Your task to perform on an android device: change the upload size in google photos Image 0: 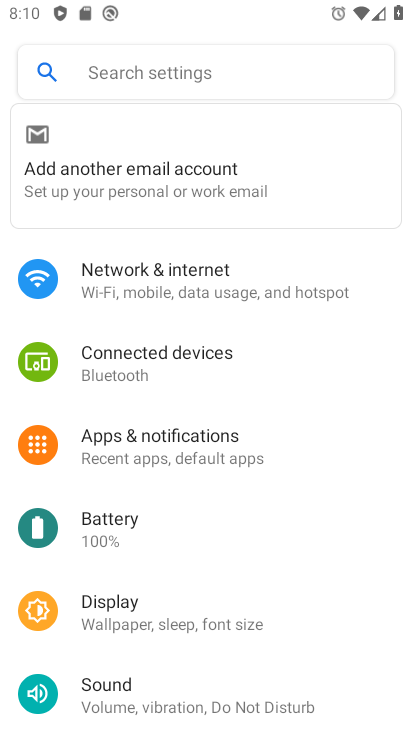
Step 0: press home button
Your task to perform on an android device: change the upload size in google photos Image 1: 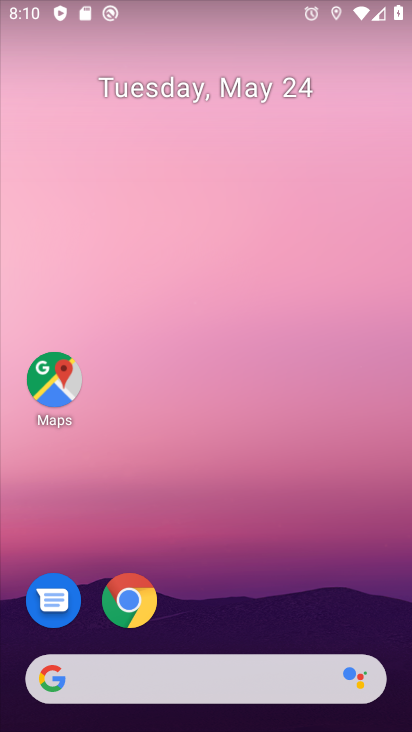
Step 1: drag from (213, 711) to (218, 212)
Your task to perform on an android device: change the upload size in google photos Image 2: 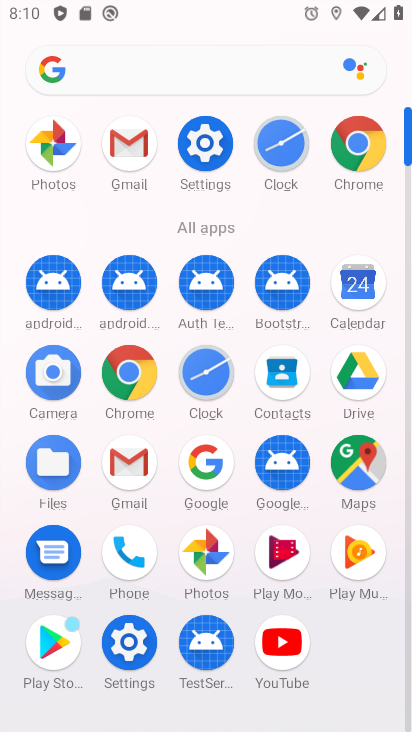
Step 2: click (201, 552)
Your task to perform on an android device: change the upload size in google photos Image 3: 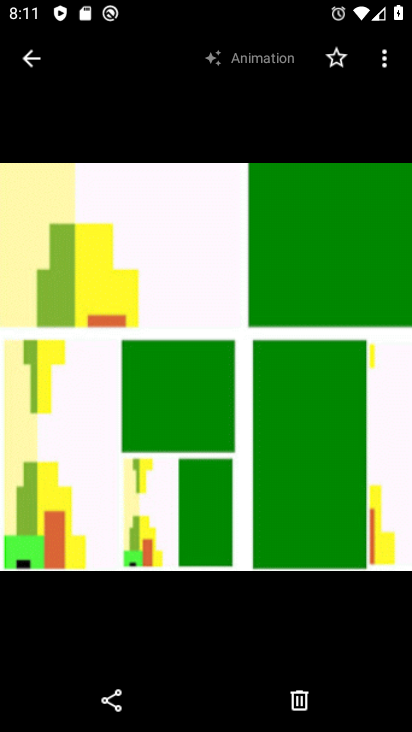
Step 3: click (31, 61)
Your task to perform on an android device: change the upload size in google photos Image 4: 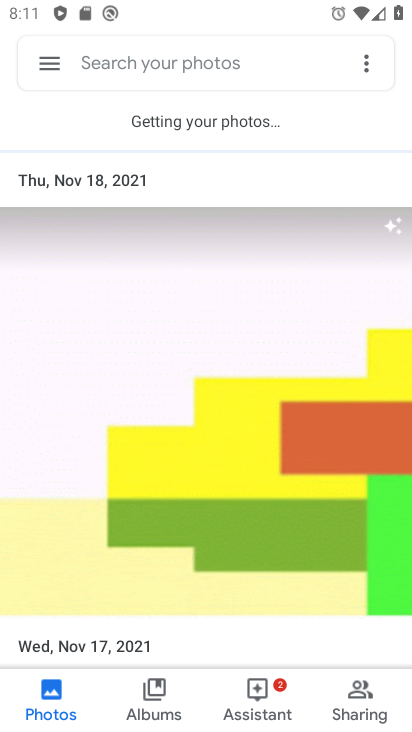
Step 4: click (47, 60)
Your task to perform on an android device: change the upload size in google photos Image 5: 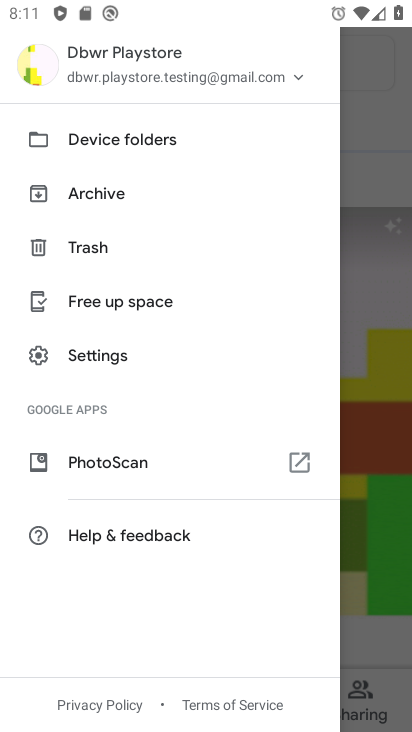
Step 5: click (108, 356)
Your task to perform on an android device: change the upload size in google photos Image 6: 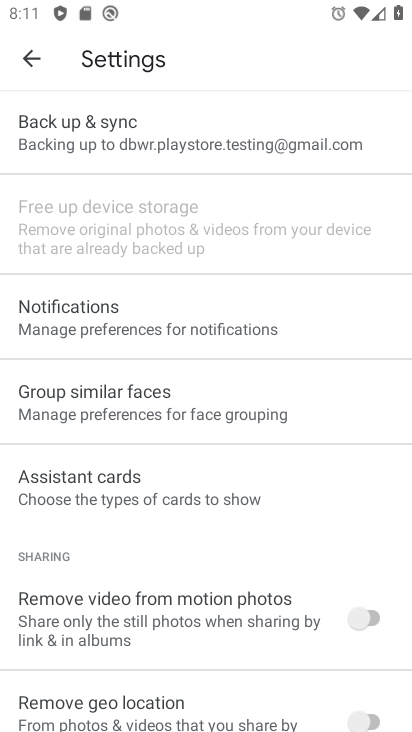
Step 6: click (96, 139)
Your task to perform on an android device: change the upload size in google photos Image 7: 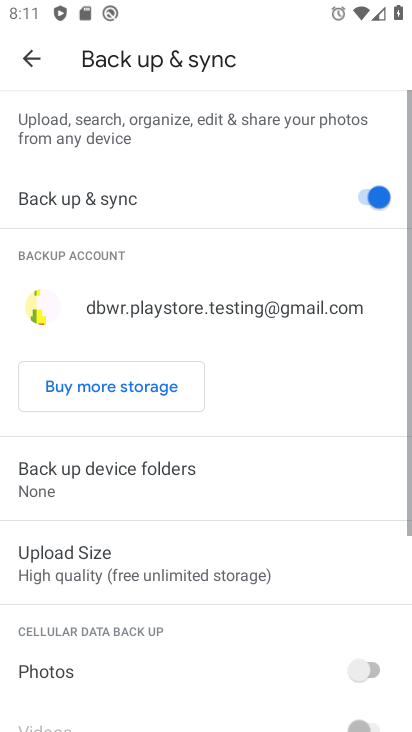
Step 7: click (90, 562)
Your task to perform on an android device: change the upload size in google photos Image 8: 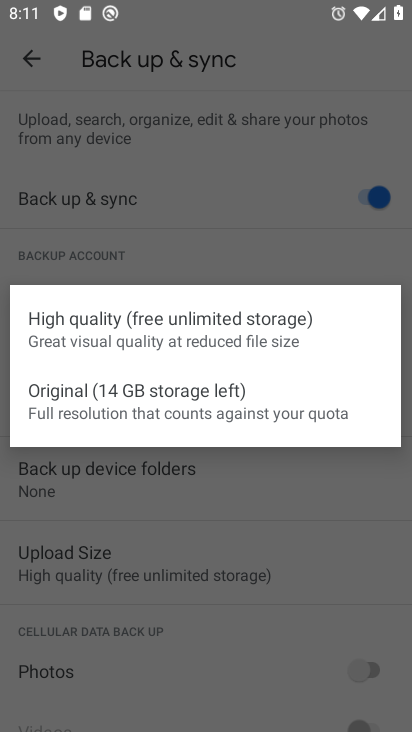
Step 8: click (142, 394)
Your task to perform on an android device: change the upload size in google photos Image 9: 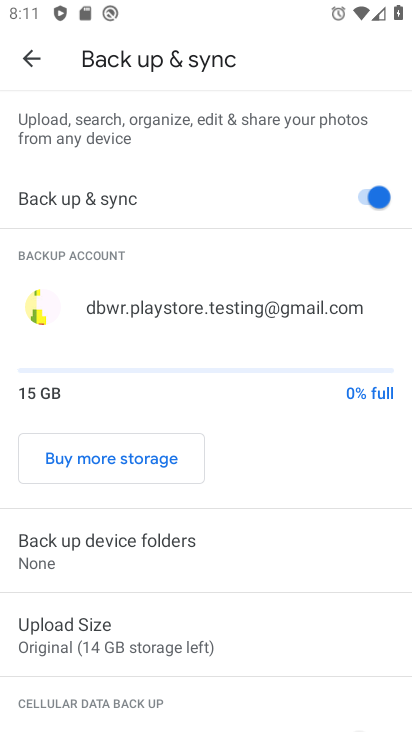
Step 9: task complete